Your task to perform on an android device: Go to notification settings Image 0: 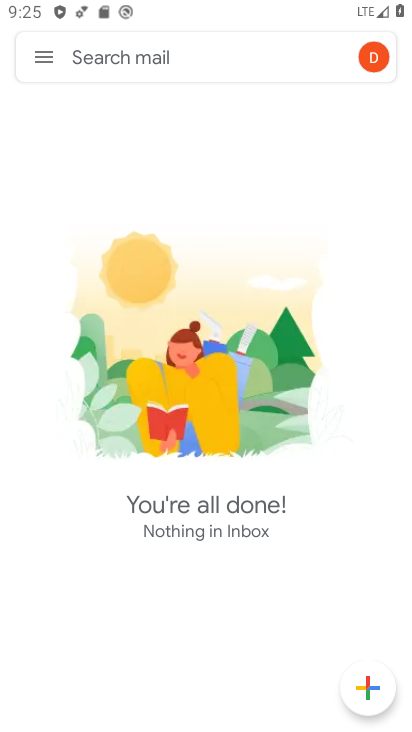
Step 0: press home button
Your task to perform on an android device: Go to notification settings Image 1: 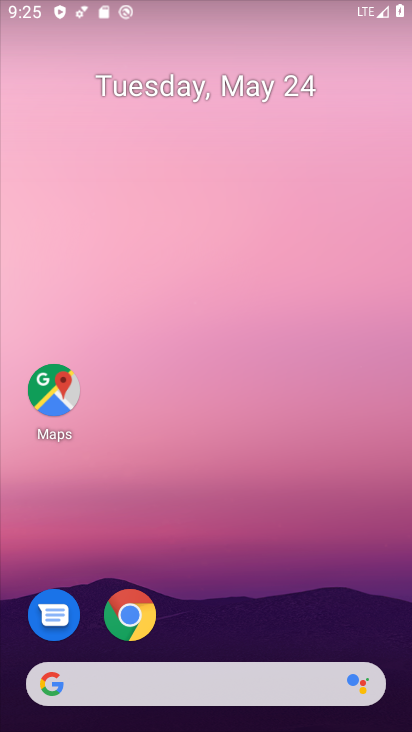
Step 1: drag from (187, 583) to (136, 31)
Your task to perform on an android device: Go to notification settings Image 2: 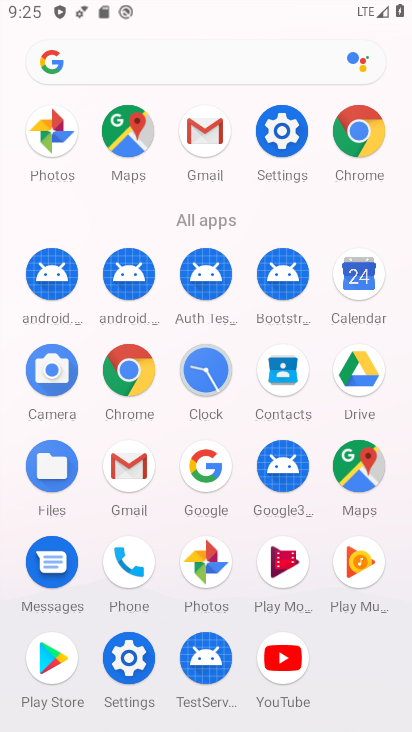
Step 2: click (132, 666)
Your task to perform on an android device: Go to notification settings Image 3: 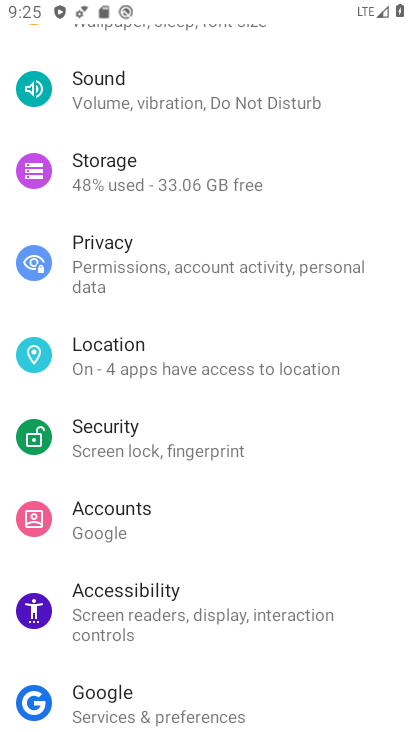
Step 3: drag from (201, 290) to (266, 573)
Your task to perform on an android device: Go to notification settings Image 4: 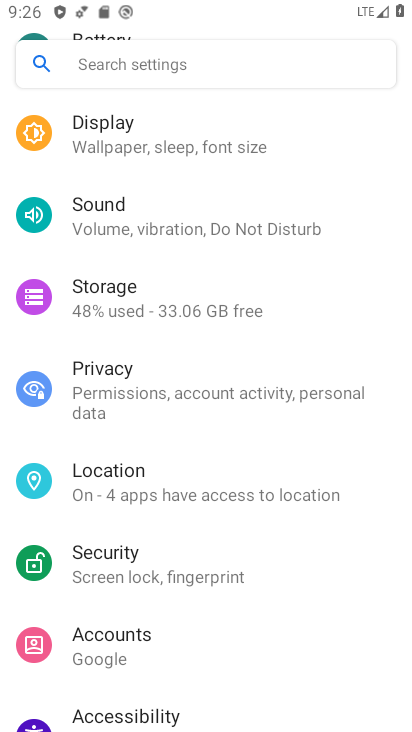
Step 4: drag from (178, 230) to (215, 481)
Your task to perform on an android device: Go to notification settings Image 5: 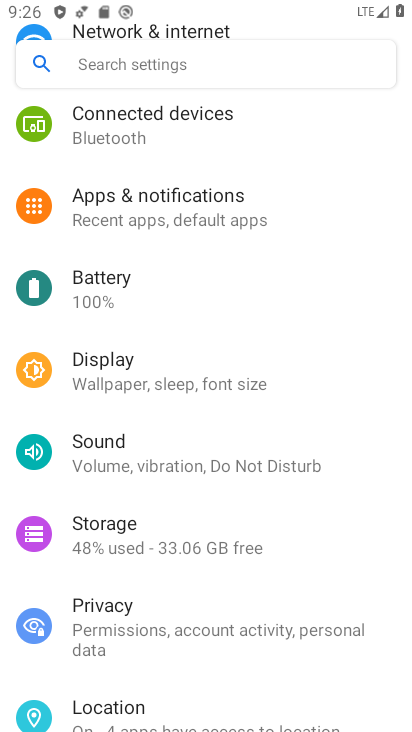
Step 5: drag from (186, 234) to (208, 437)
Your task to perform on an android device: Go to notification settings Image 6: 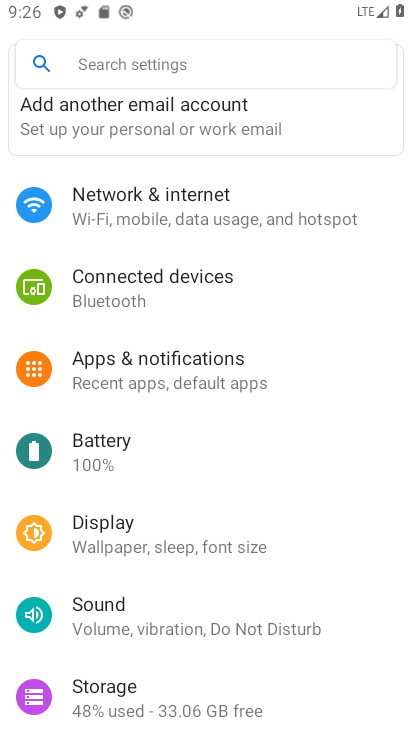
Step 6: click (153, 367)
Your task to perform on an android device: Go to notification settings Image 7: 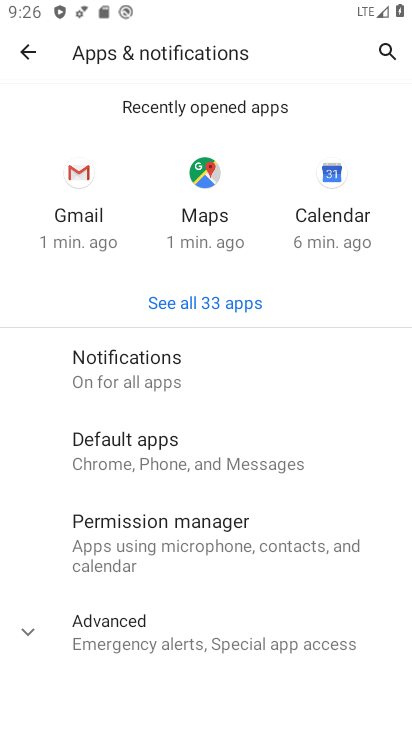
Step 7: click (225, 389)
Your task to perform on an android device: Go to notification settings Image 8: 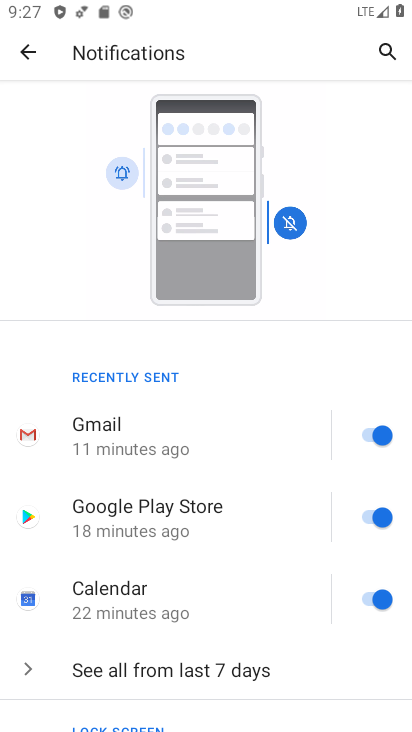
Step 8: task complete